Your task to perform on an android device: Do I have any events tomorrow? Image 0: 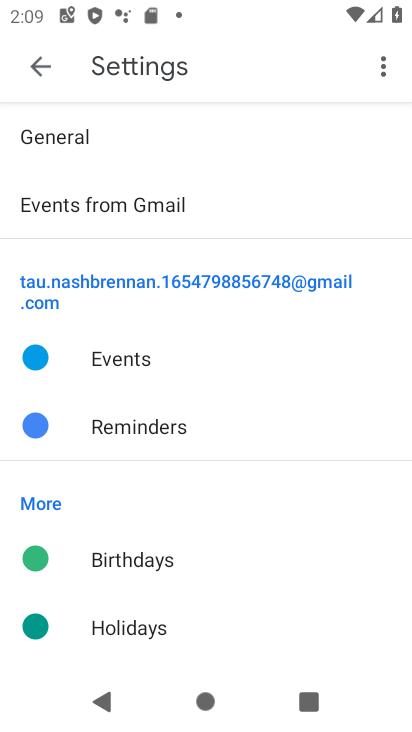
Step 0: press home button
Your task to perform on an android device: Do I have any events tomorrow? Image 1: 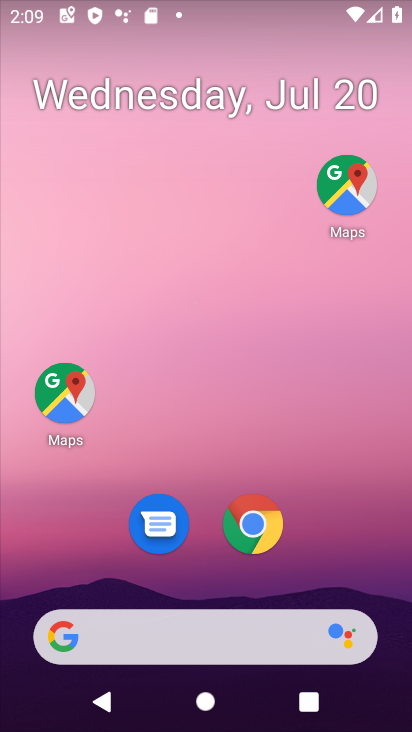
Step 1: drag from (311, 569) to (347, 35)
Your task to perform on an android device: Do I have any events tomorrow? Image 2: 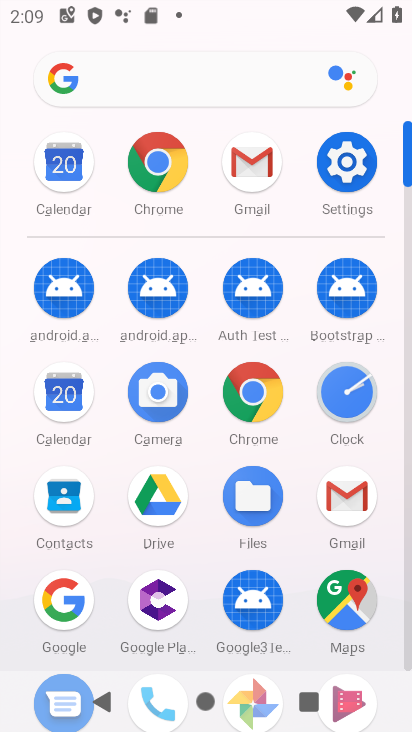
Step 2: click (61, 163)
Your task to perform on an android device: Do I have any events tomorrow? Image 3: 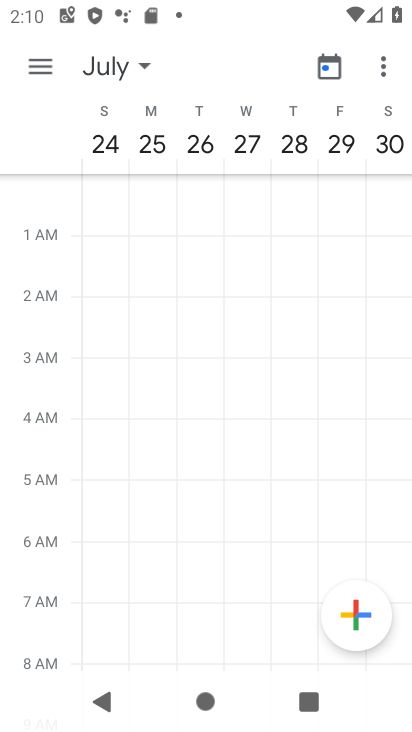
Step 3: task complete